Your task to perform on an android device: Open Google Chrome and open the bookmarks view Image 0: 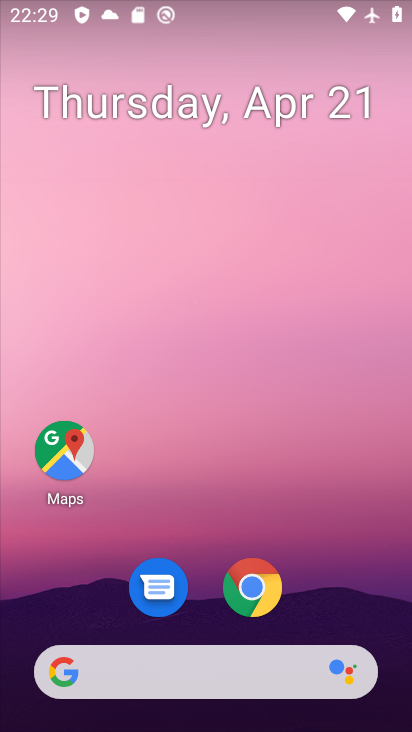
Step 0: drag from (337, 575) to (354, 144)
Your task to perform on an android device: Open Google Chrome and open the bookmarks view Image 1: 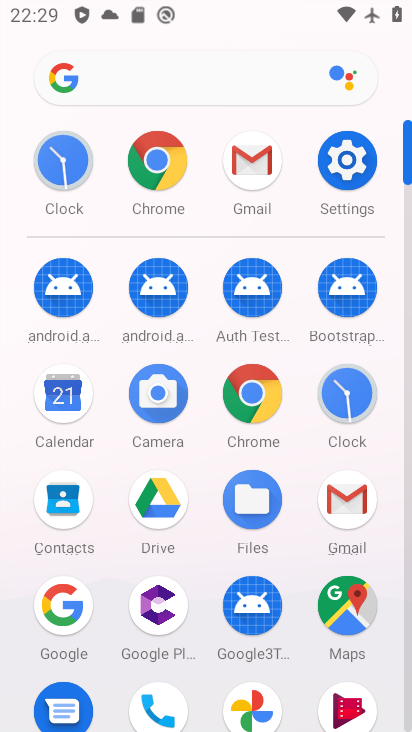
Step 1: click (265, 400)
Your task to perform on an android device: Open Google Chrome and open the bookmarks view Image 2: 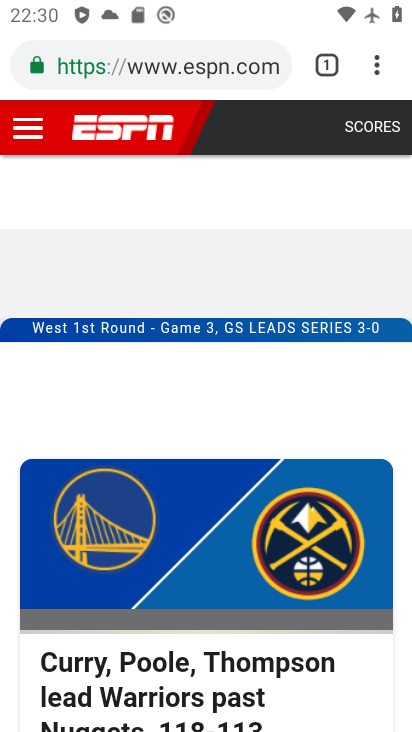
Step 2: click (379, 70)
Your task to perform on an android device: Open Google Chrome and open the bookmarks view Image 3: 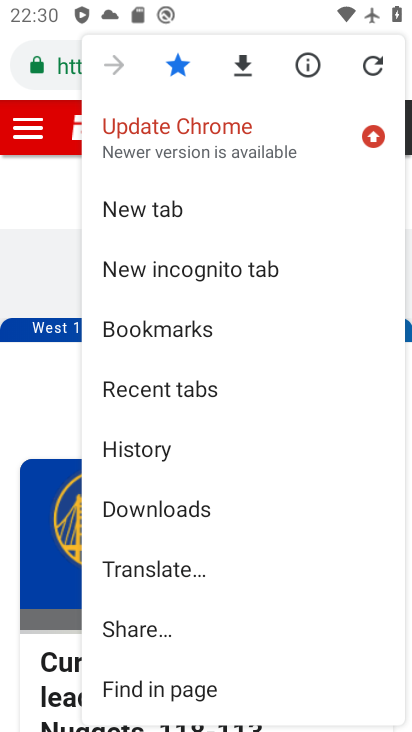
Step 3: click (198, 330)
Your task to perform on an android device: Open Google Chrome and open the bookmarks view Image 4: 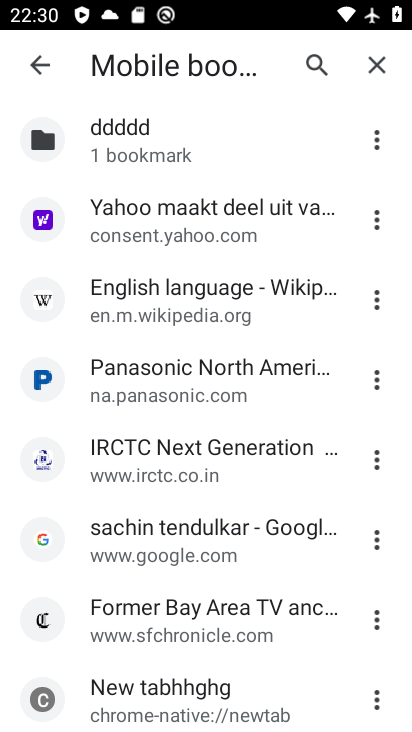
Step 4: task complete